Your task to perform on an android device: turn on location history Image 0: 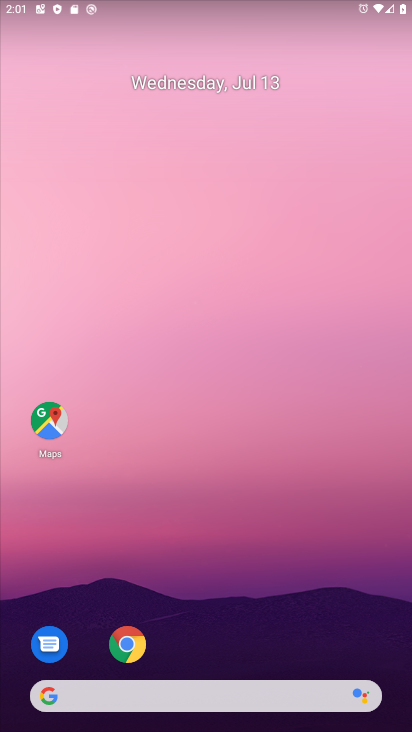
Step 0: drag from (198, 669) to (170, 129)
Your task to perform on an android device: turn on location history Image 1: 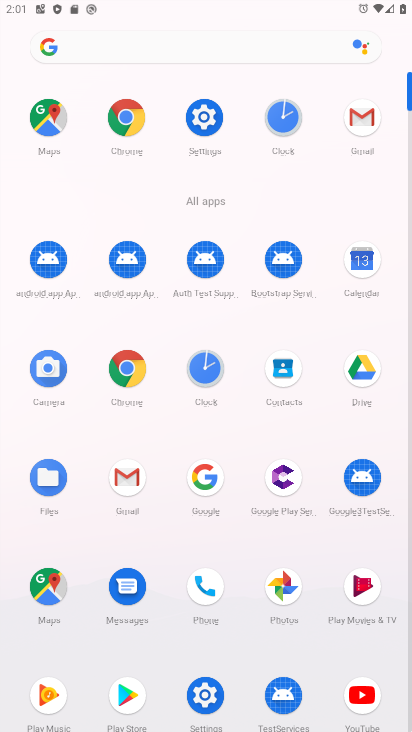
Step 1: click (207, 129)
Your task to perform on an android device: turn on location history Image 2: 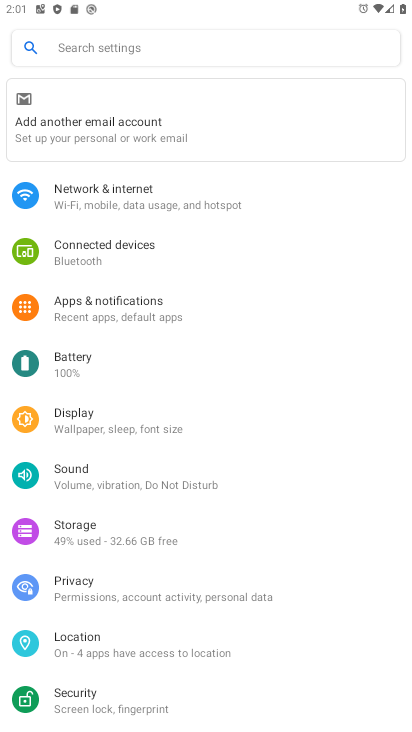
Step 2: click (74, 640)
Your task to perform on an android device: turn on location history Image 3: 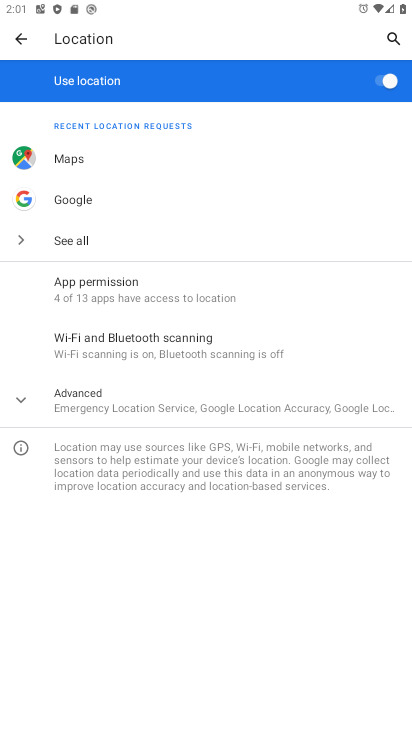
Step 3: click (136, 408)
Your task to perform on an android device: turn on location history Image 4: 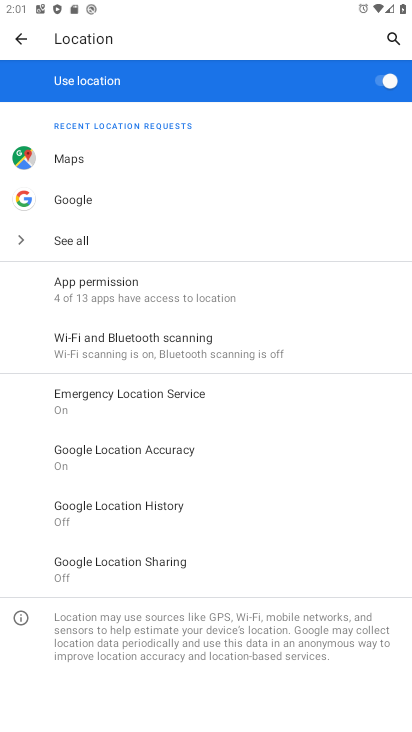
Step 4: click (166, 487)
Your task to perform on an android device: turn on location history Image 5: 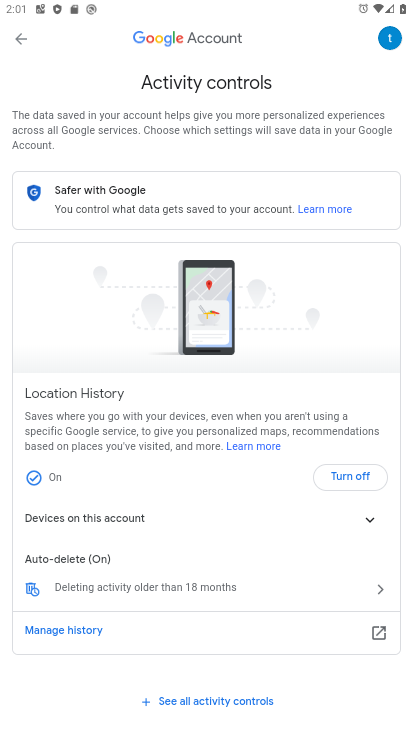
Step 5: task complete